Your task to perform on an android device: Check the weather Image 0: 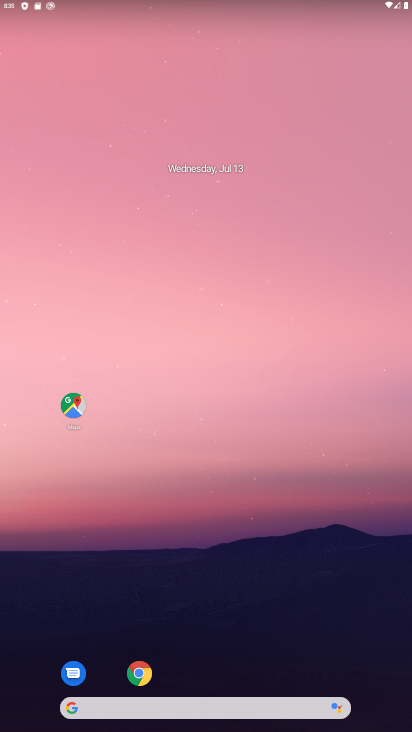
Step 0: click (180, 700)
Your task to perform on an android device: Check the weather Image 1: 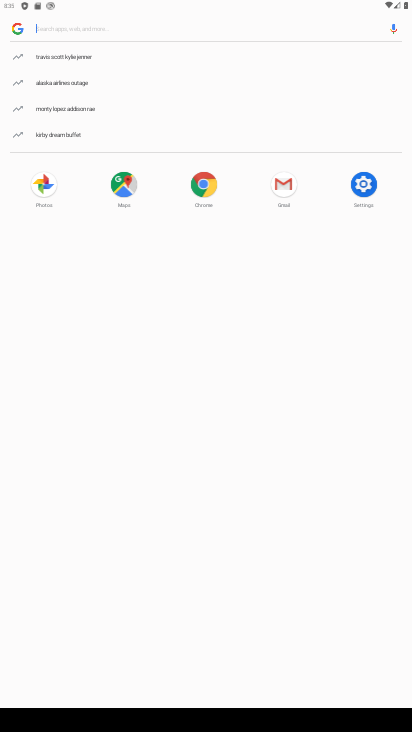
Step 1: type "weather"
Your task to perform on an android device: Check the weather Image 2: 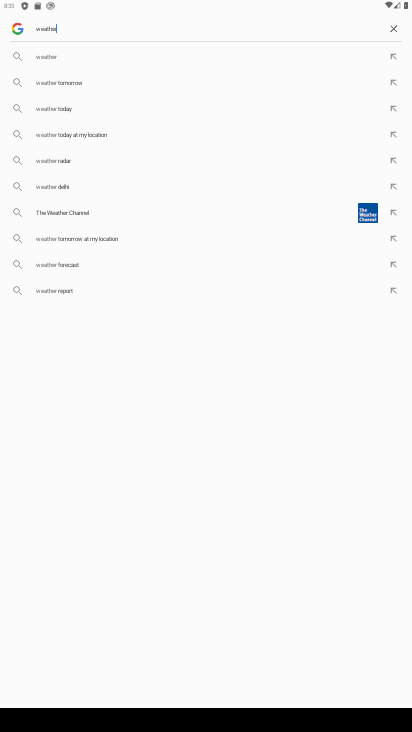
Step 2: click (68, 58)
Your task to perform on an android device: Check the weather Image 3: 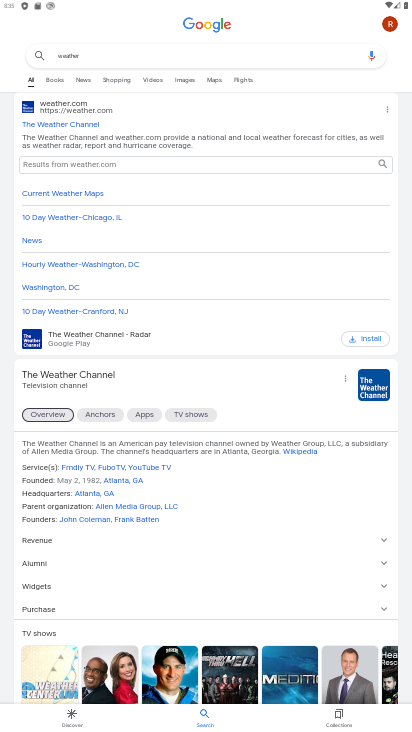
Step 3: task complete